Your task to perform on an android device: add a label to a message in the gmail app Image 0: 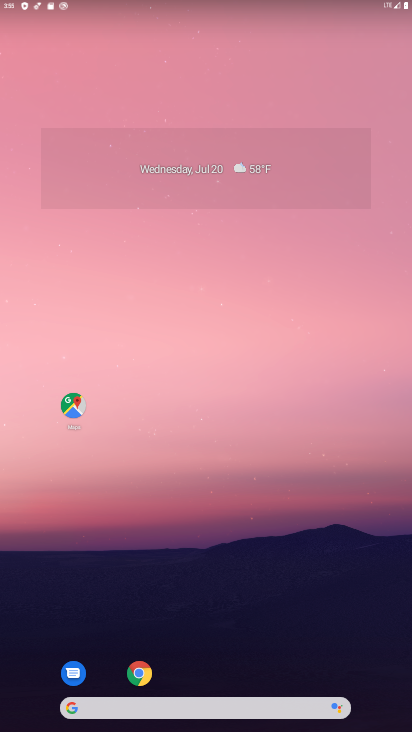
Step 0: drag from (234, 550) to (262, 174)
Your task to perform on an android device: add a label to a message in the gmail app Image 1: 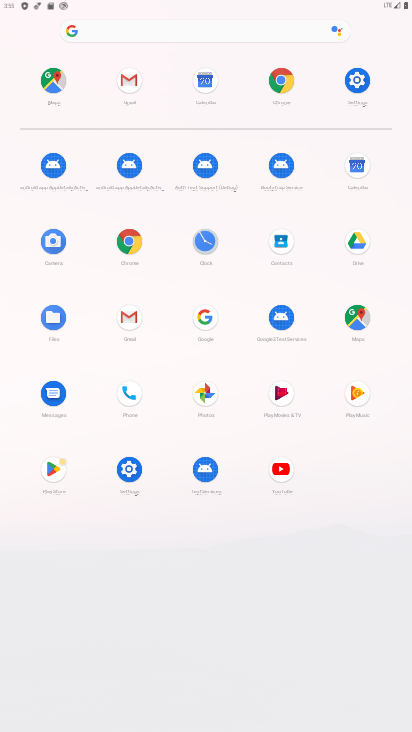
Step 1: click (123, 316)
Your task to perform on an android device: add a label to a message in the gmail app Image 2: 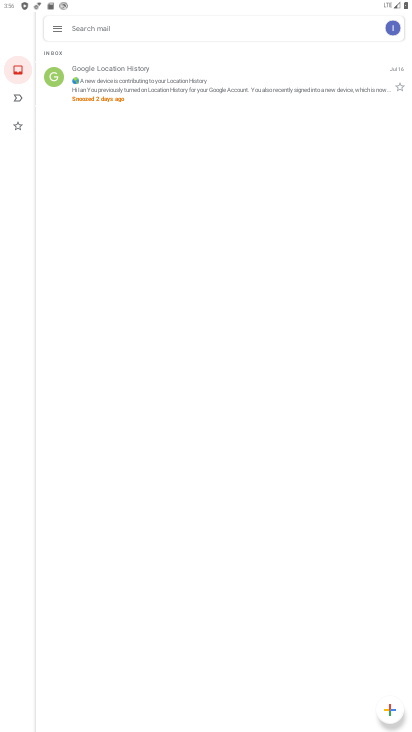
Step 2: click (55, 30)
Your task to perform on an android device: add a label to a message in the gmail app Image 3: 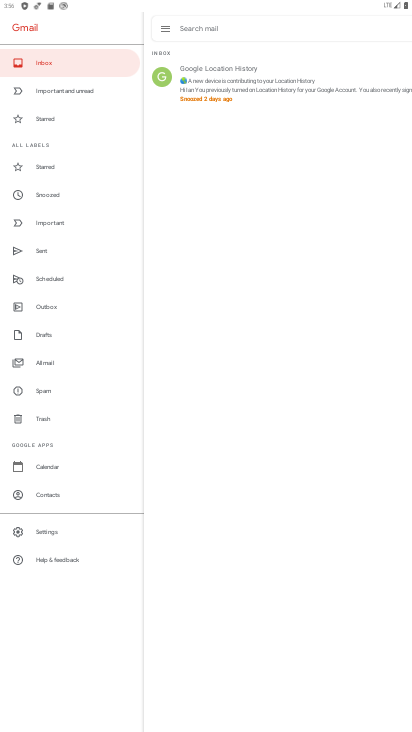
Step 3: click (161, 24)
Your task to perform on an android device: add a label to a message in the gmail app Image 4: 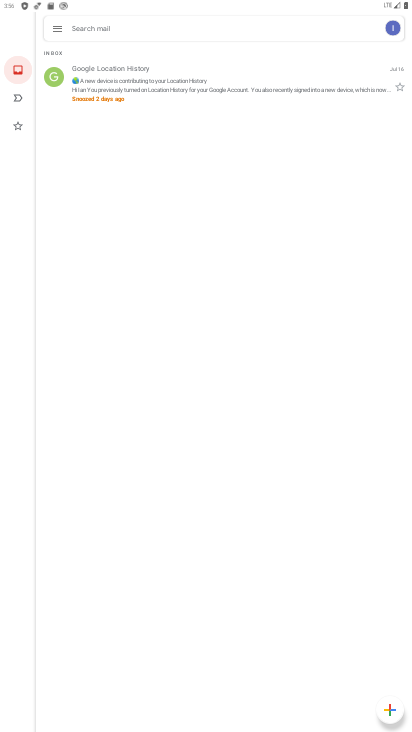
Step 4: click (52, 78)
Your task to perform on an android device: add a label to a message in the gmail app Image 5: 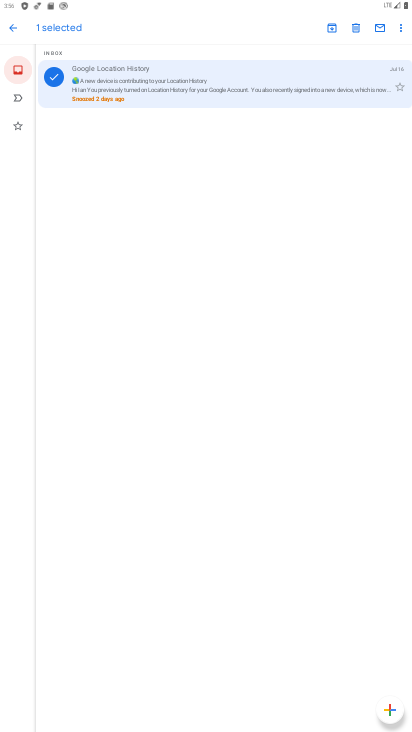
Step 5: click (17, 100)
Your task to perform on an android device: add a label to a message in the gmail app Image 6: 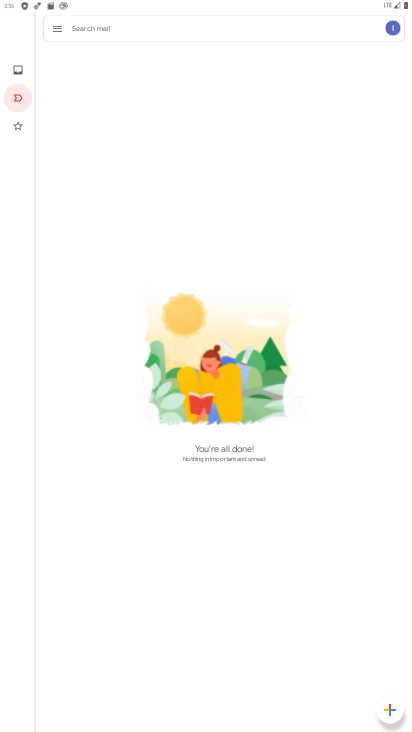
Step 6: task complete